Your task to perform on an android device: Go to Amazon Image 0: 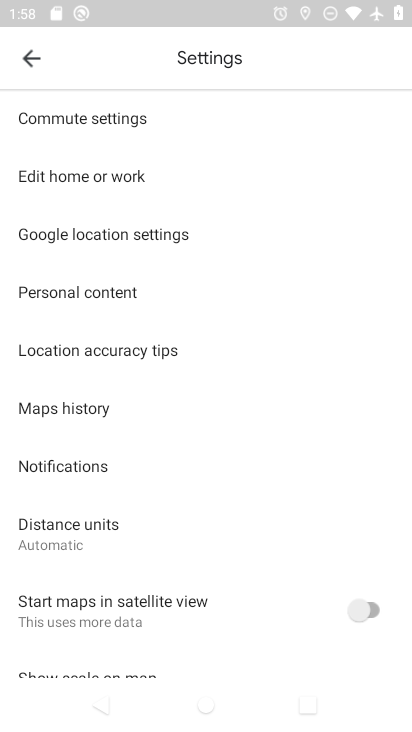
Step 0: press home button
Your task to perform on an android device: Go to Amazon Image 1: 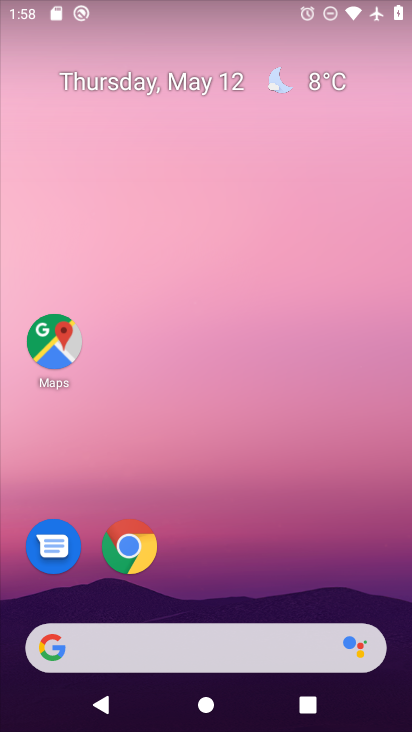
Step 1: click (146, 551)
Your task to perform on an android device: Go to Amazon Image 2: 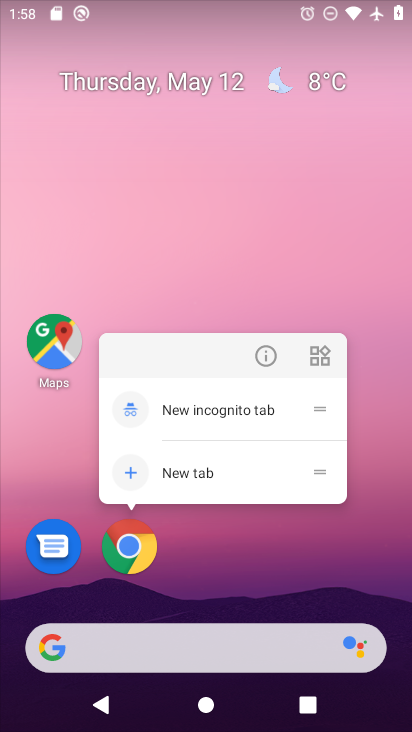
Step 2: click (131, 546)
Your task to perform on an android device: Go to Amazon Image 3: 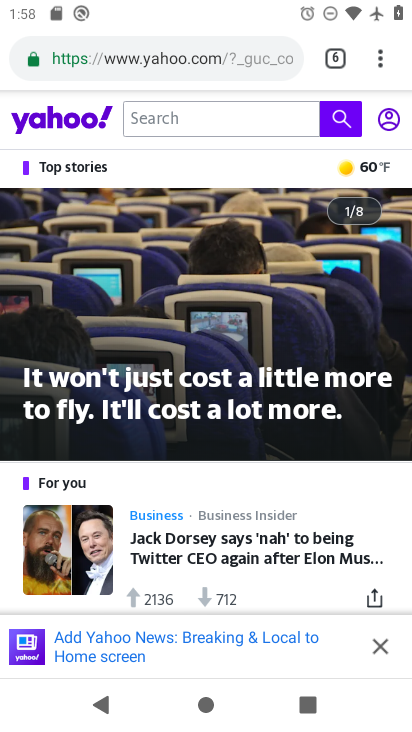
Step 3: drag from (380, 68) to (282, 113)
Your task to perform on an android device: Go to Amazon Image 4: 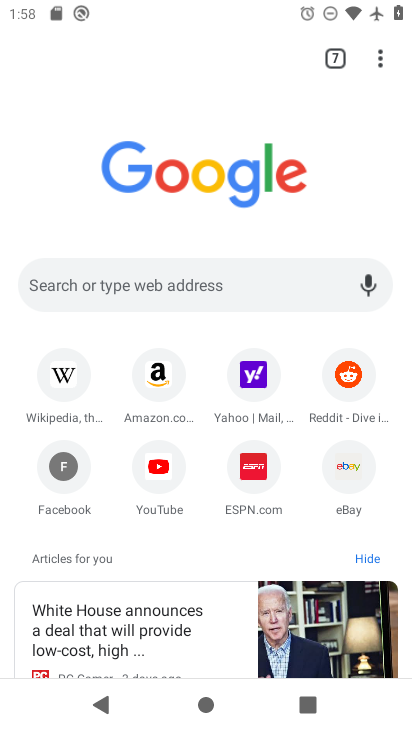
Step 4: click (151, 363)
Your task to perform on an android device: Go to Amazon Image 5: 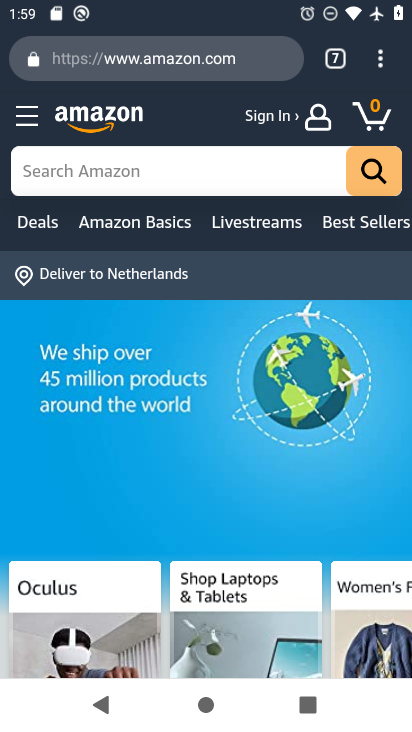
Step 5: task complete